Your task to perform on an android device: Go to internet settings Image 0: 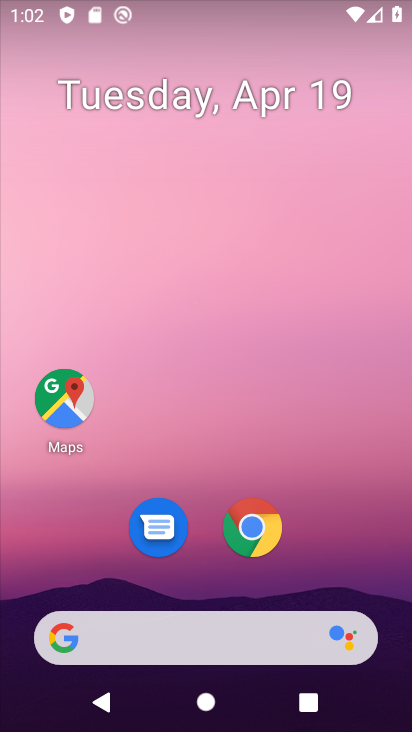
Step 0: drag from (359, 379) to (371, 100)
Your task to perform on an android device: Go to internet settings Image 1: 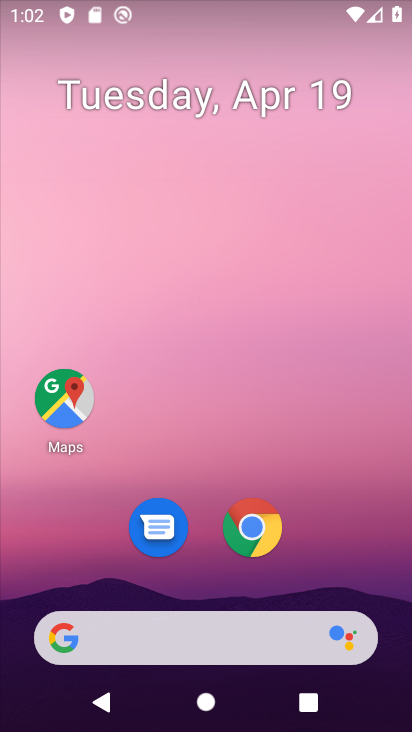
Step 1: drag from (326, 567) to (325, 110)
Your task to perform on an android device: Go to internet settings Image 2: 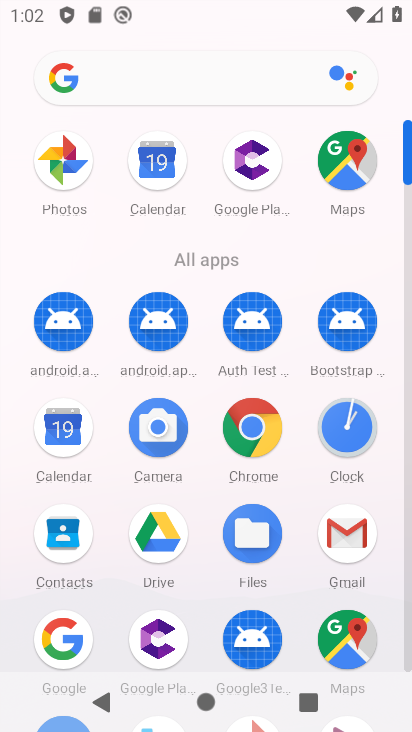
Step 2: drag from (298, 177) to (300, 38)
Your task to perform on an android device: Go to internet settings Image 3: 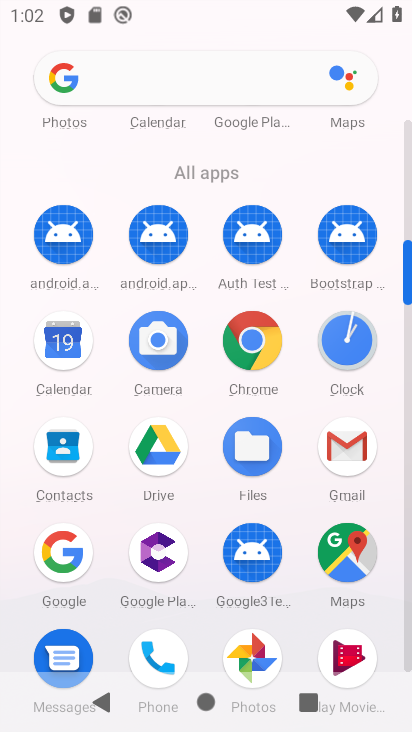
Step 3: drag from (288, 281) to (291, 50)
Your task to perform on an android device: Go to internet settings Image 4: 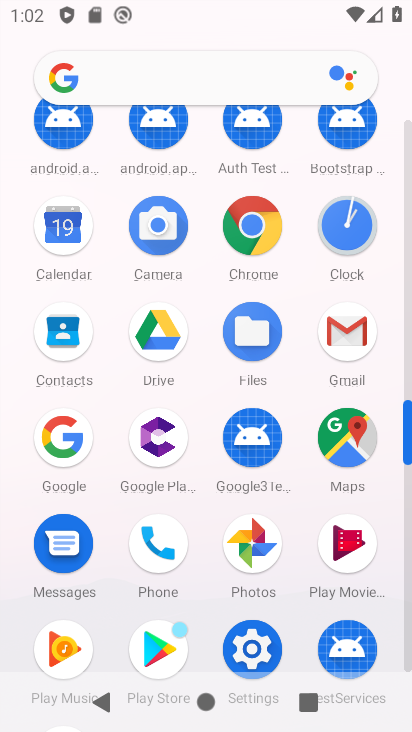
Step 4: click (248, 647)
Your task to perform on an android device: Go to internet settings Image 5: 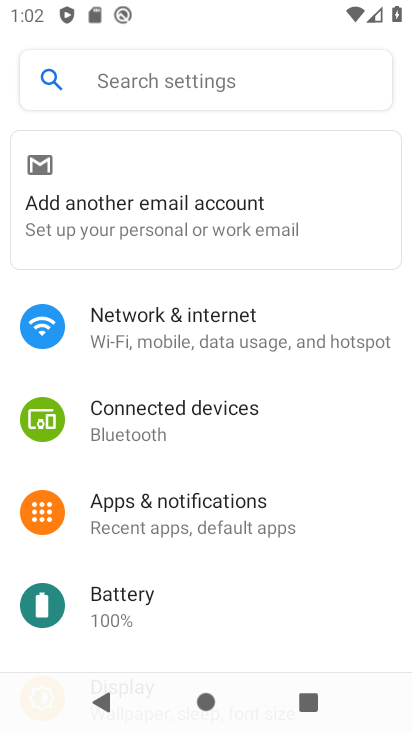
Step 5: drag from (316, 609) to (307, 555)
Your task to perform on an android device: Go to internet settings Image 6: 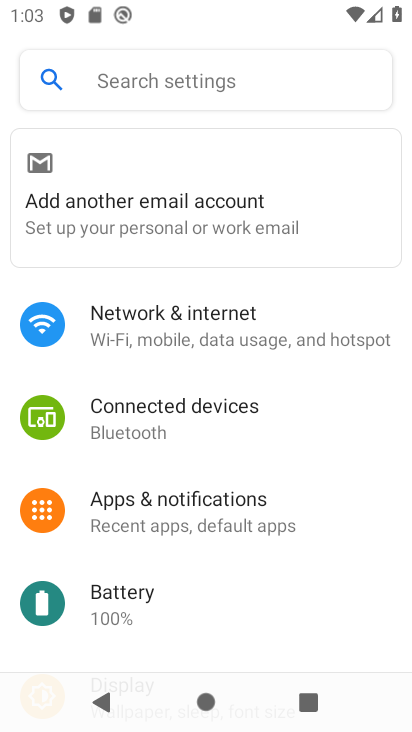
Step 6: click (202, 331)
Your task to perform on an android device: Go to internet settings Image 7: 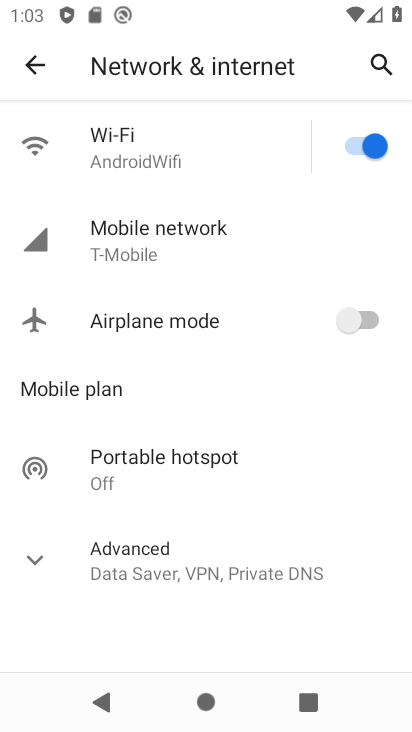
Step 7: task complete